Your task to perform on an android device: When is my next appointment? Image 0: 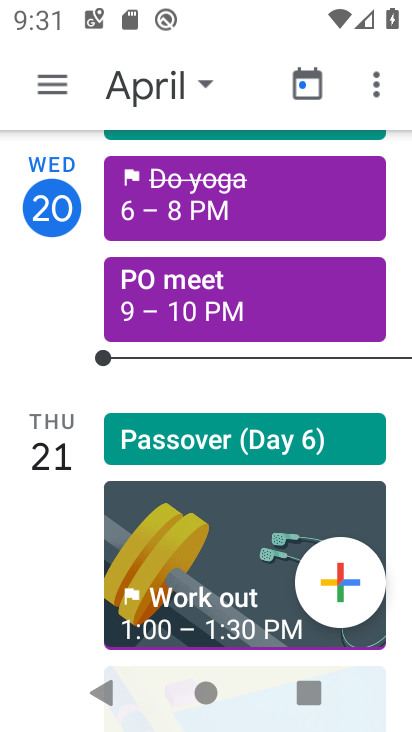
Step 0: press home button
Your task to perform on an android device: When is my next appointment? Image 1: 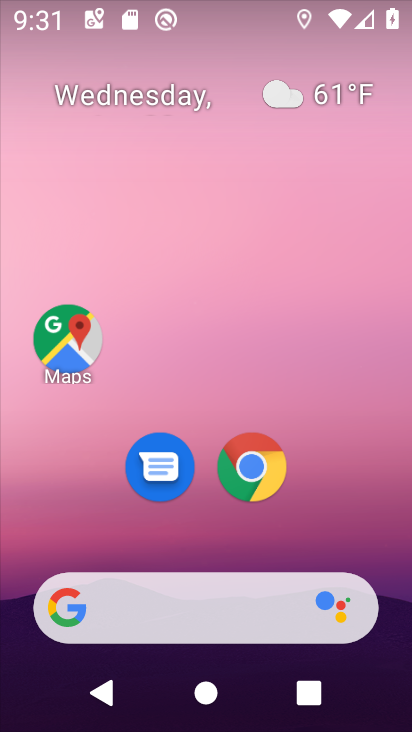
Step 1: drag from (305, 529) to (386, 49)
Your task to perform on an android device: When is my next appointment? Image 2: 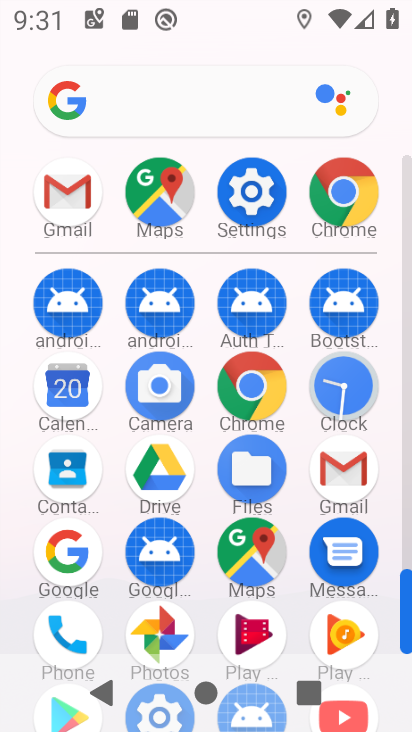
Step 2: click (81, 398)
Your task to perform on an android device: When is my next appointment? Image 3: 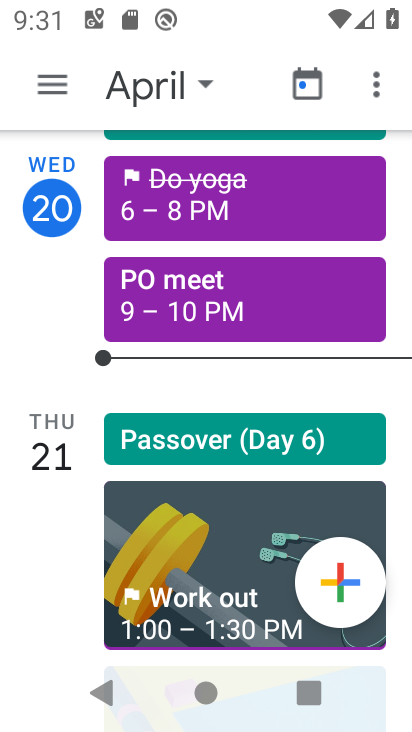
Step 3: click (154, 85)
Your task to perform on an android device: When is my next appointment? Image 4: 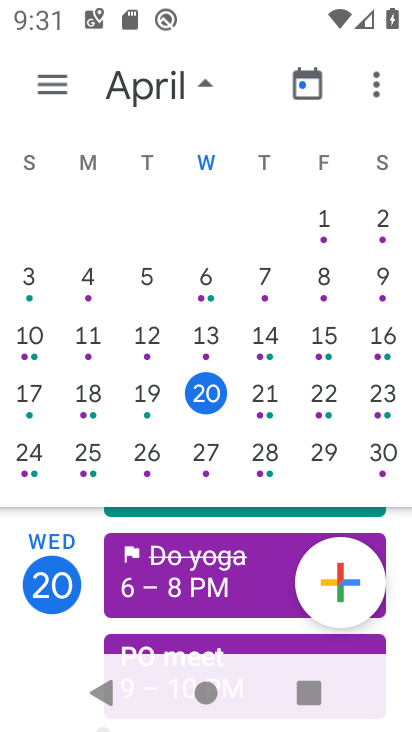
Step 4: click (272, 391)
Your task to perform on an android device: When is my next appointment? Image 5: 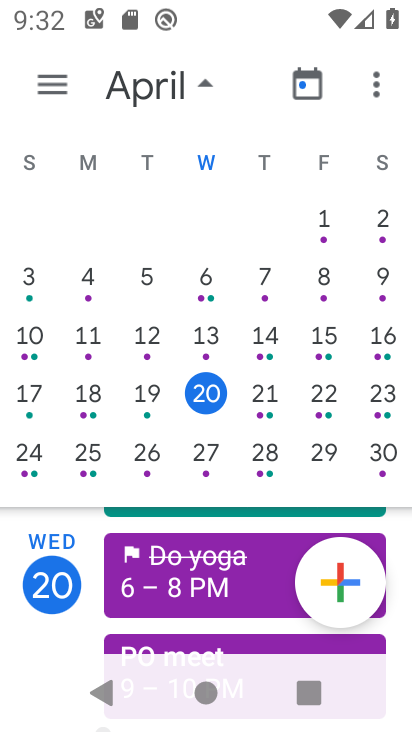
Step 5: click (261, 396)
Your task to perform on an android device: When is my next appointment? Image 6: 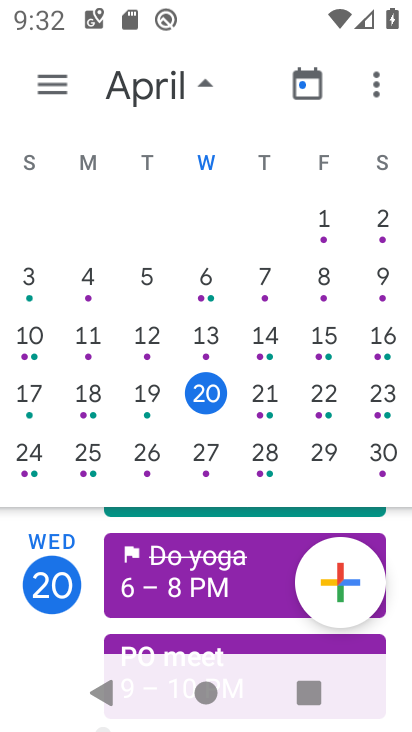
Step 6: click (261, 395)
Your task to perform on an android device: When is my next appointment? Image 7: 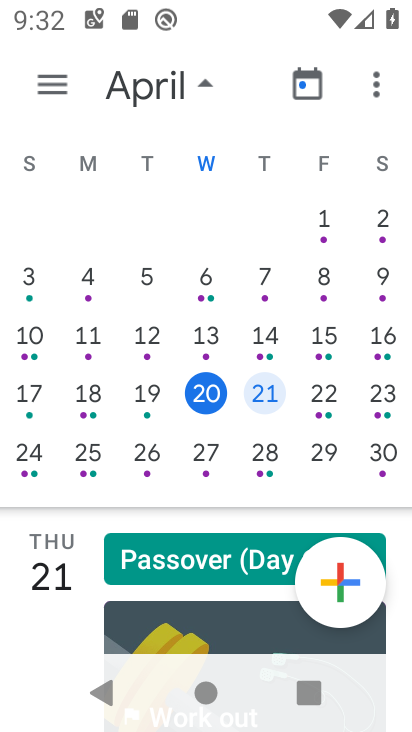
Step 7: click (272, 384)
Your task to perform on an android device: When is my next appointment? Image 8: 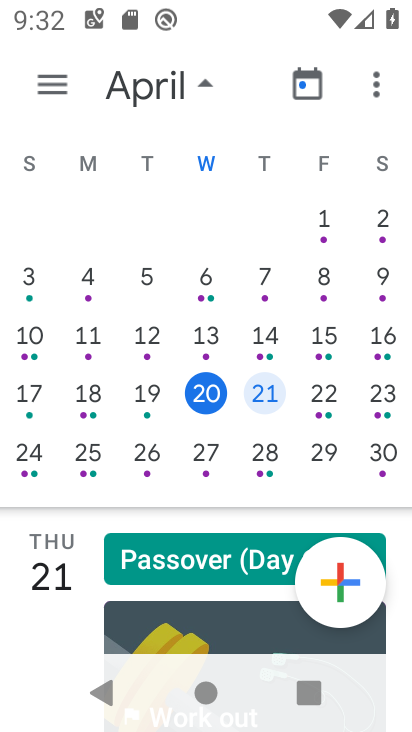
Step 8: click (271, 404)
Your task to perform on an android device: When is my next appointment? Image 9: 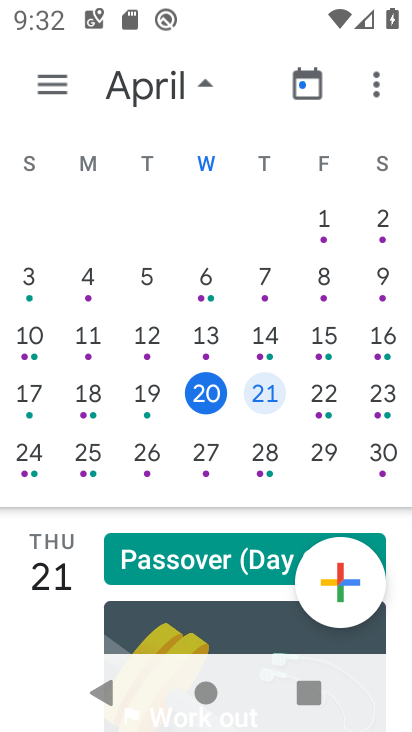
Step 9: click (266, 394)
Your task to perform on an android device: When is my next appointment? Image 10: 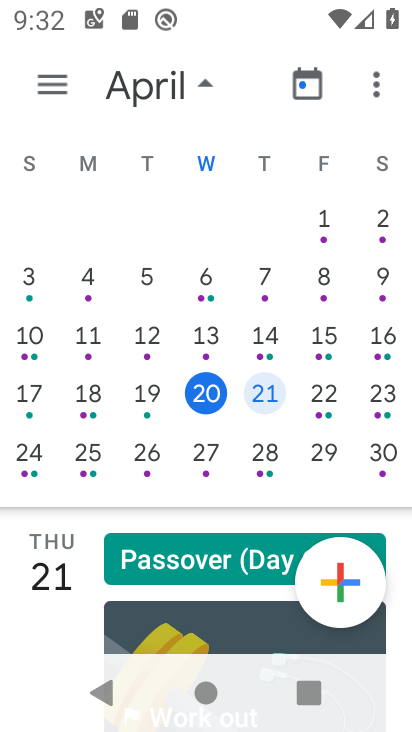
Step 10: click (266, 394)
Your task to perform on an android device: When is my next appointment? Image 11: 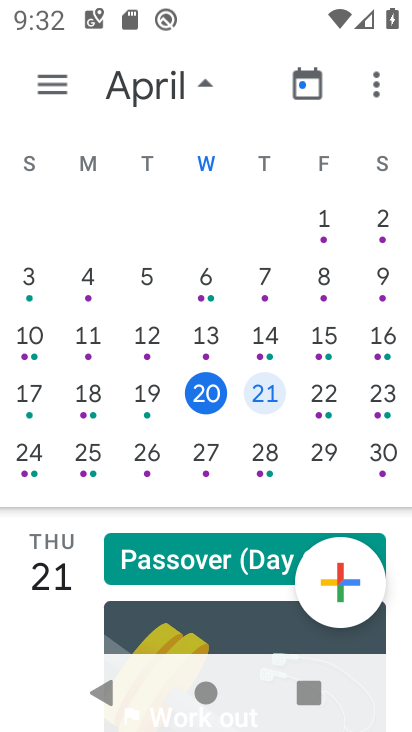
Step 11: click (268, 400)
Your task to perform on an android device: When is my next appointment? Image 12: 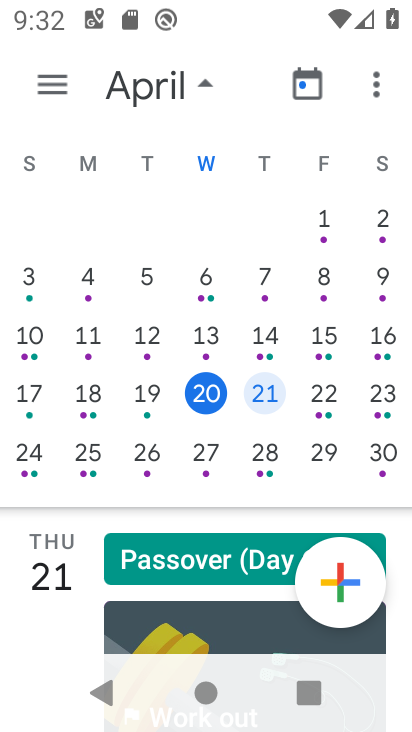
Step 12: click (268, 403)
Your task to perform on an android device: When is my next appointment? Image 13: 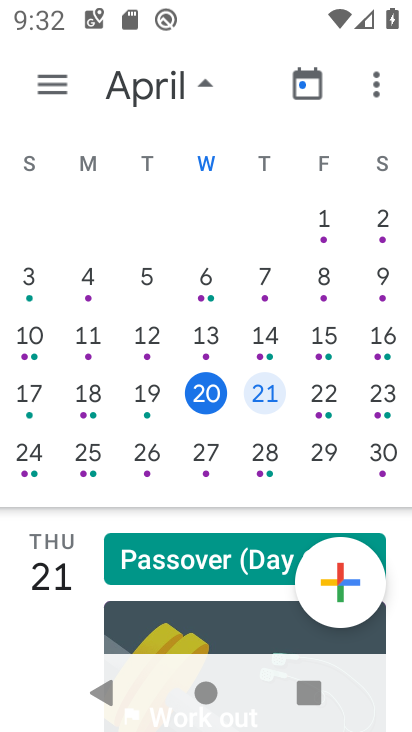
Step 13: click (268, 403)
Your task to perform on an android device: When is my next appointment? Image 14: 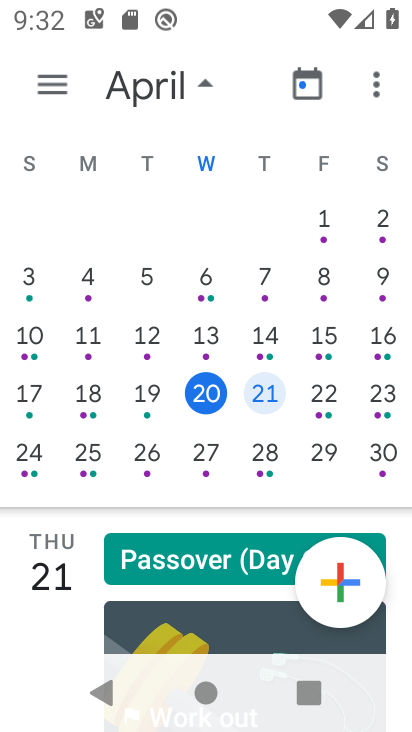
Step 14: click (268, 403)
Your task to perform on an android device: When is my next appointment? Image 15: 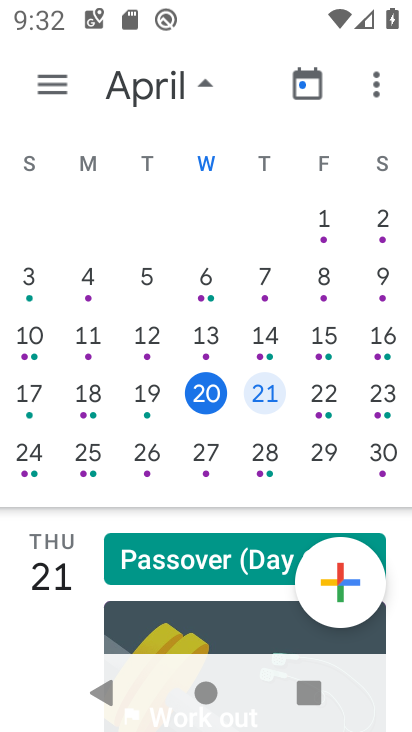
Step 15: click (268, 403)
Your task to perform on an android device: When is my next appointment? Image 16: 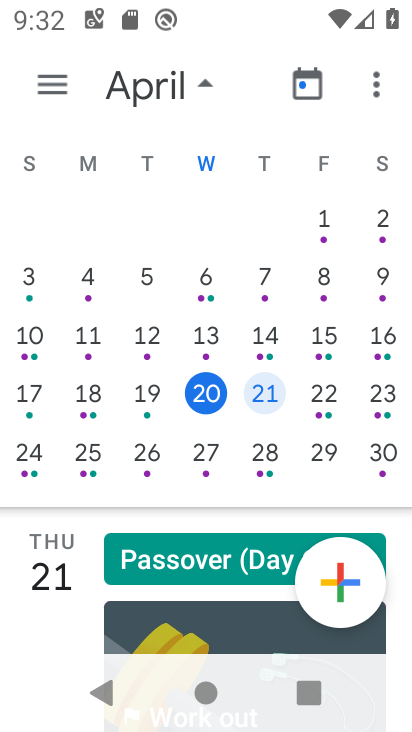
Step 16: click (316, 402)
Your task to perform on an android device: When is my next appointment? Image 17: 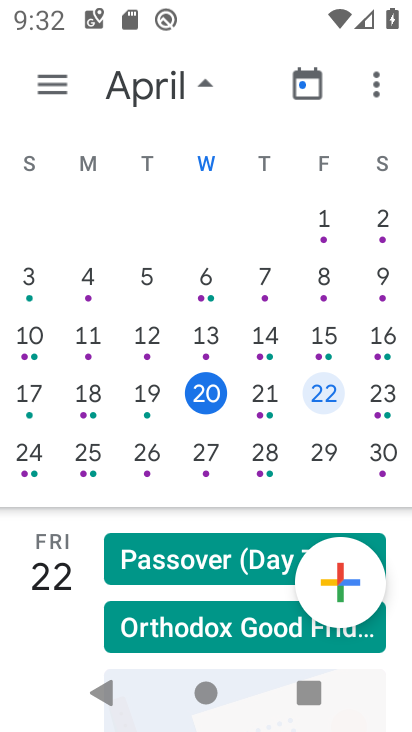
Step 17: click (276, 403)
Your task to perform on an android device: When is my next appointment? Image 18: 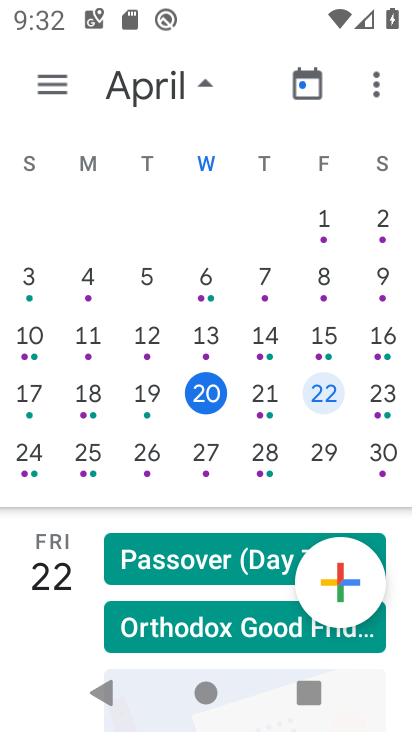
Step 18: task complete